Your task to perform on an android device: Clear the cart on bestbuy.com. Add bose soundlink to the cart on bestbuy.com, then select checkout. Image 0: 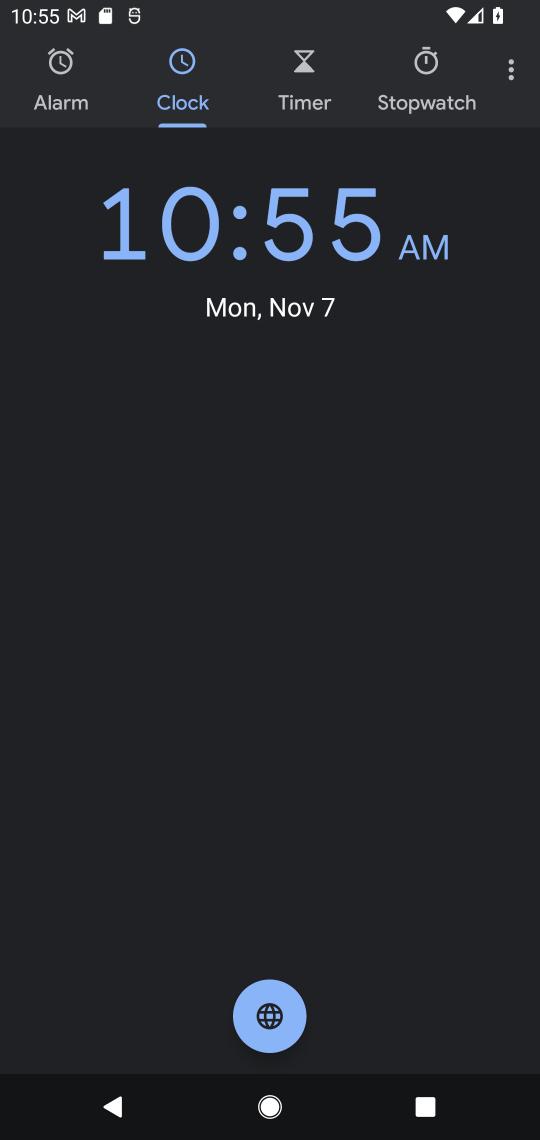
Step 0: press home button
Your task to perform on an android device: Clear the cart on bestbuy.com. Add bose soundlink to the cart on bestbuy.com, then select checkout. Image 1: 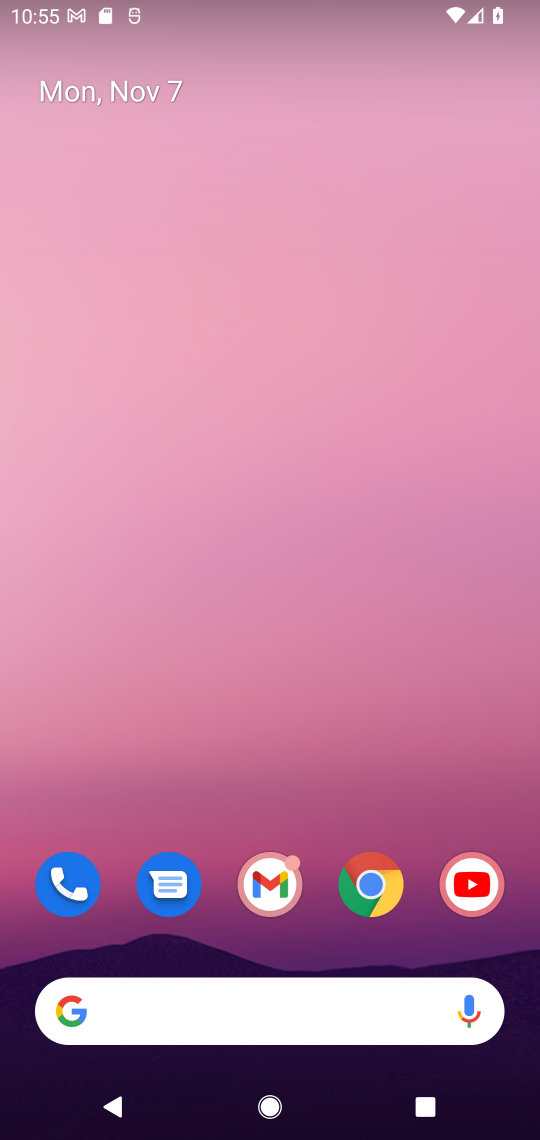
Step 1: click (372, 879)
Your task to perform on an android device: Clear the cart on bestbuy.com. Add bose soundlink to the cart on bestbuy.com, then select checkout. Image 2: 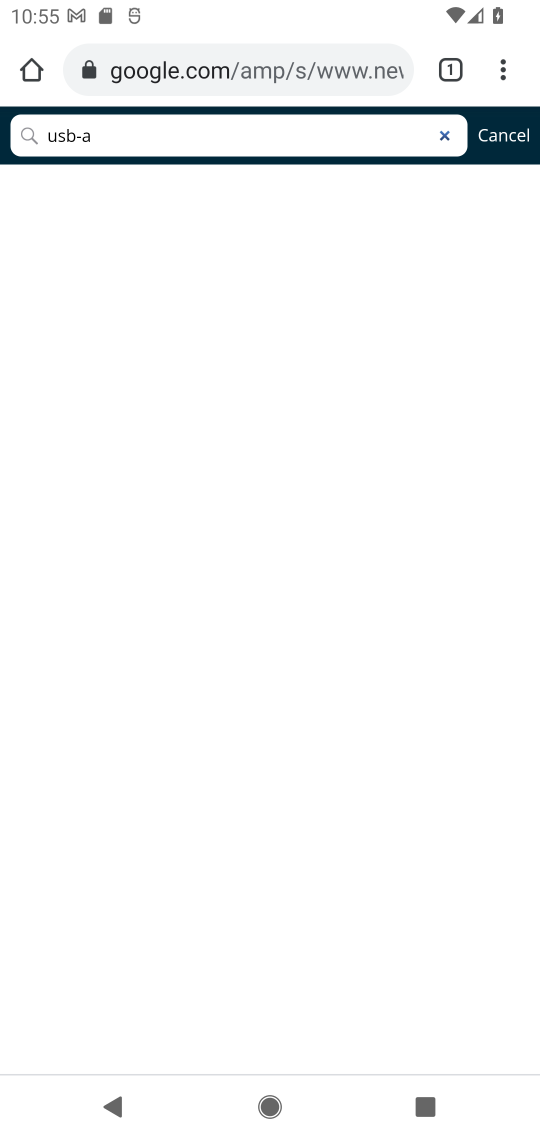
Step 2: click (345, 59)
Your task to perform on an android device: Clear the cart on bestbuy.com. Add bose soundlink to the cart on bestbuy.com, then select checkout. Image 3: 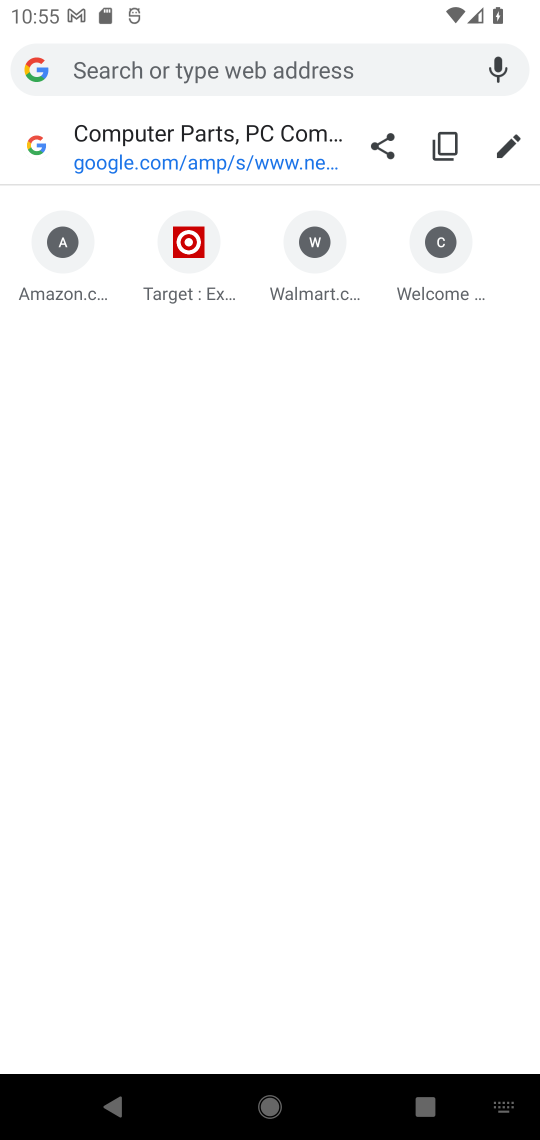
Step 3: type "bestbuy.com"
Your task to perform on an android device: Clear the cart on bestbuy.com. Add bose soundlink to the cart on bestbuy.com, then select checkout. Image 4: 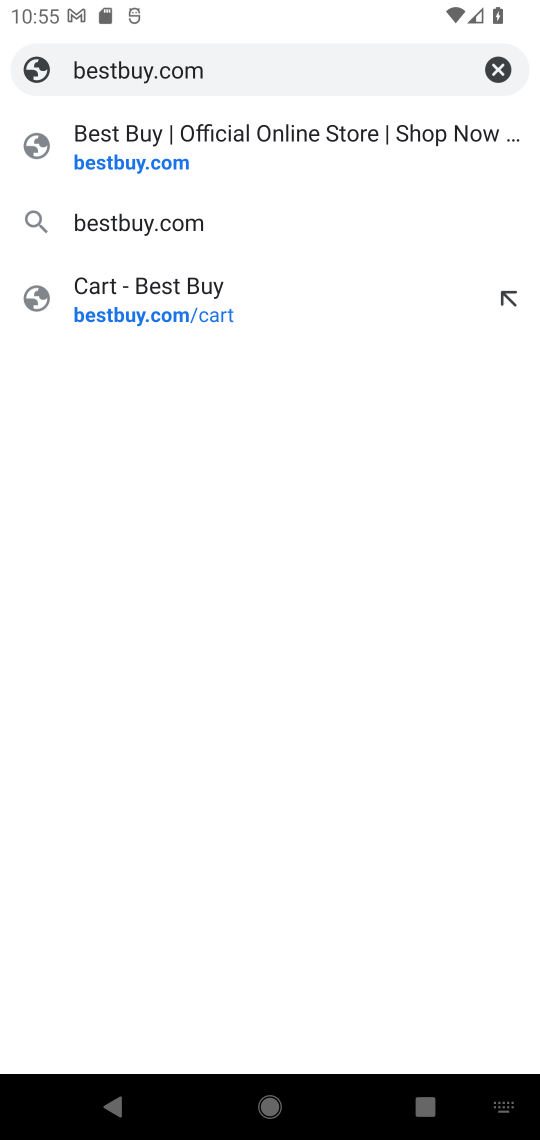
Step 4: click (140, 230)
Your task to perform on an android device: Clear the cart on bestbuy.com. Add bose soundlink to the cart on bestbuy.com, then select checkout. Image 5: 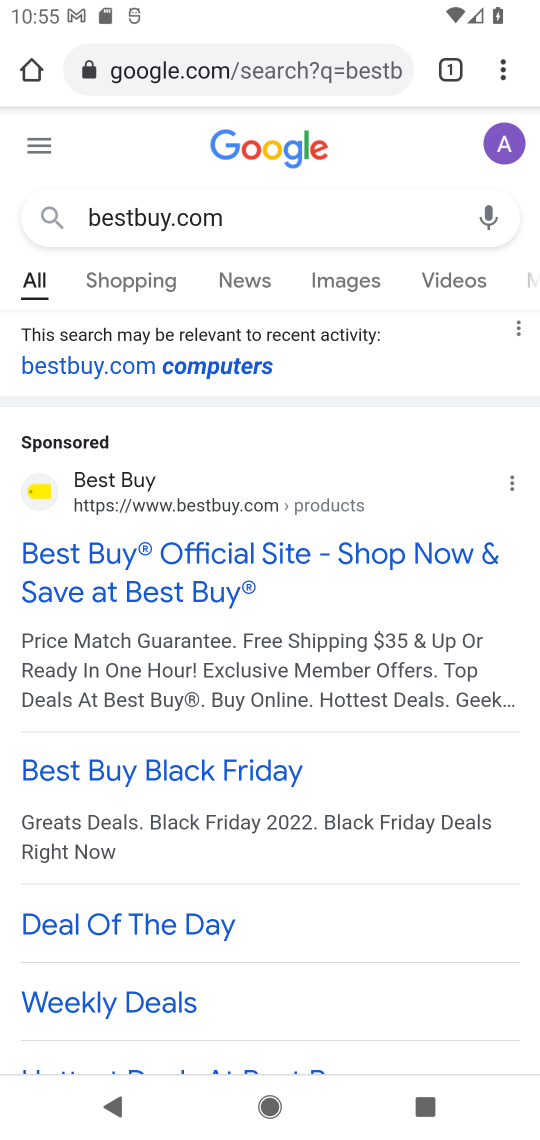
Step 5: click (129, 494)
Your task to perform on an android device: Clear the cart on bestbuy.com. Add bose soundlink to the cart on bestbuy.com, then select checkout. Image 6: 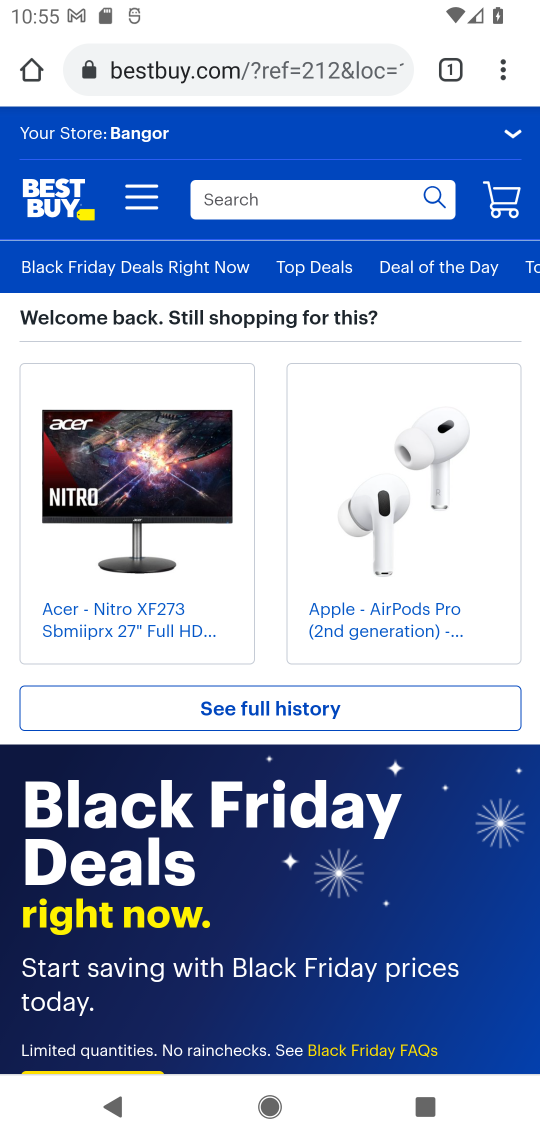
Step 6: click (509, 200)
Your task to perform on an android device: Clear the cart on bestbuy.com. Add bose soundlink to the cart on bestbuy.com, then select checkout. Image 7: 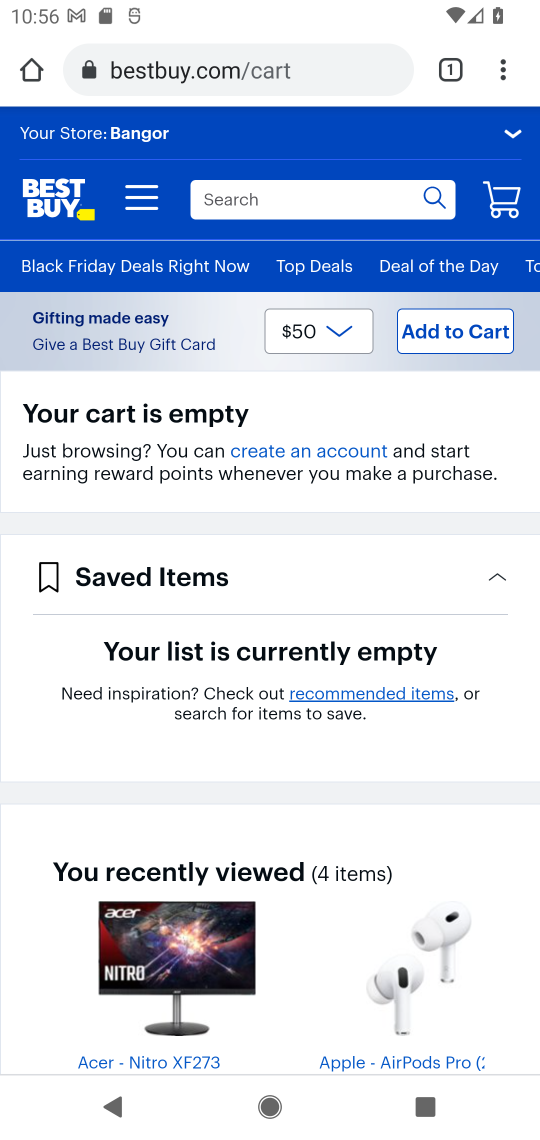
Step 7: click (364, 190)
Your task to perform on an android device: Clear the cart on bestbuy.com. Add bose soundlink to the cart on bestbuy.com, then select checkout. Image 8: 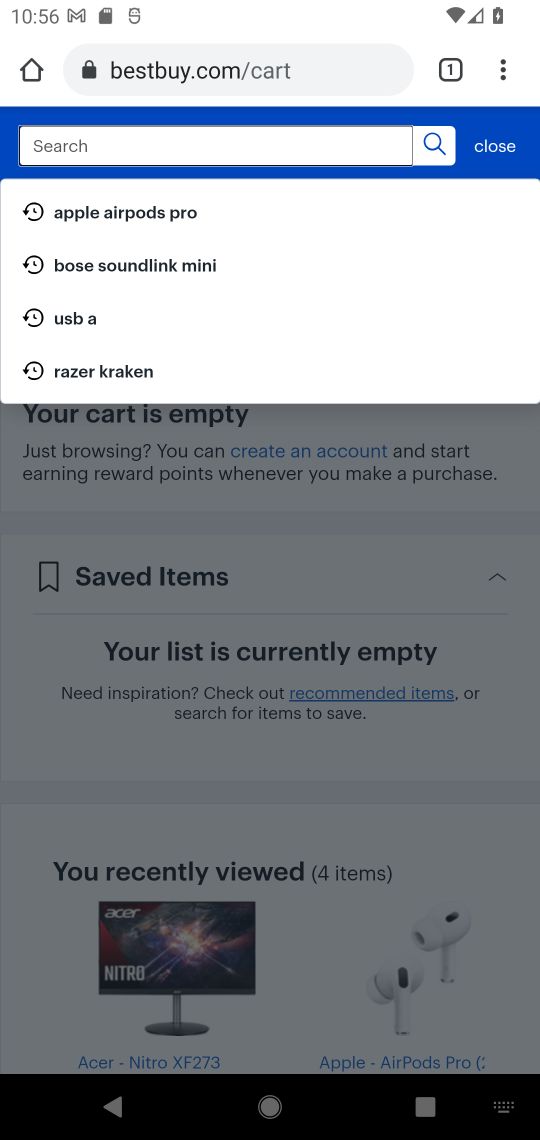
Step 8: type "bose soundlink"
Your task to perform on an android device: Clear the cart on bestbuy.com. Add bose soundlink to the cart on bestbuy.com, then select checkout. Image 9: 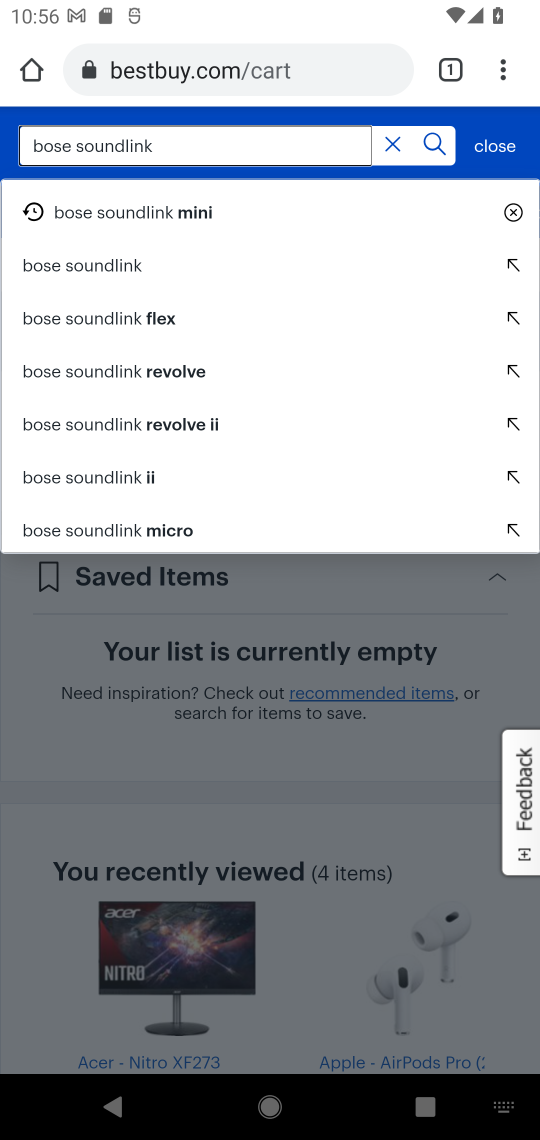
Step 9: click (119, 258)
Your task to perform on an android device: Clear the cart on bestbuy.com. Add bose soundlink to the cart on bestbuy.com, then select checkout. Image 10: 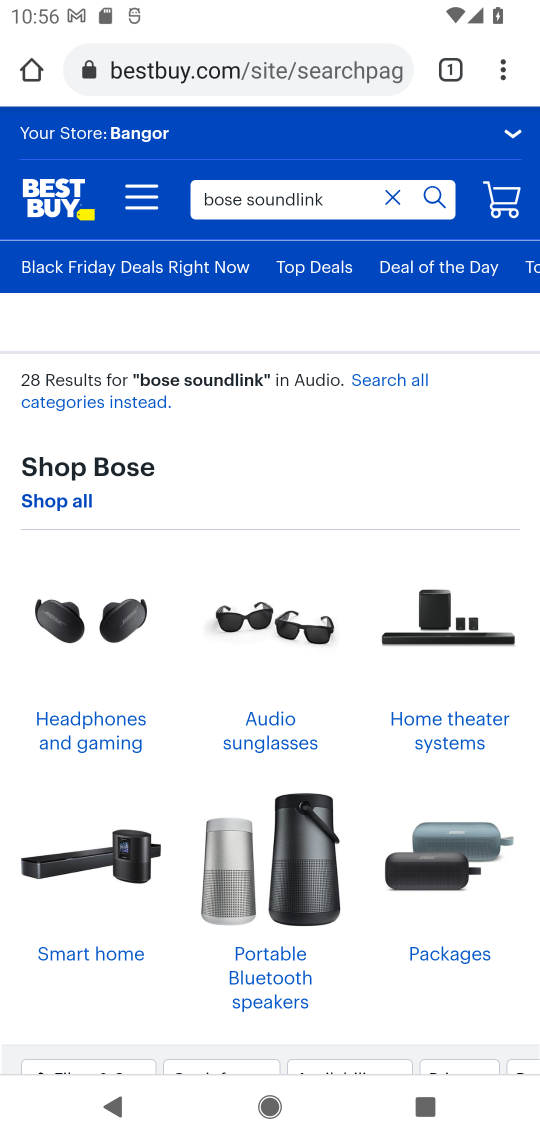
Step 10: drag from (361, 736) to (394, 294)
Your task to perform on an android device: Clear the cart on bestbuy.com. Add bose soundlink to the cart on bestbuy.com, then select checkout. Image 11: 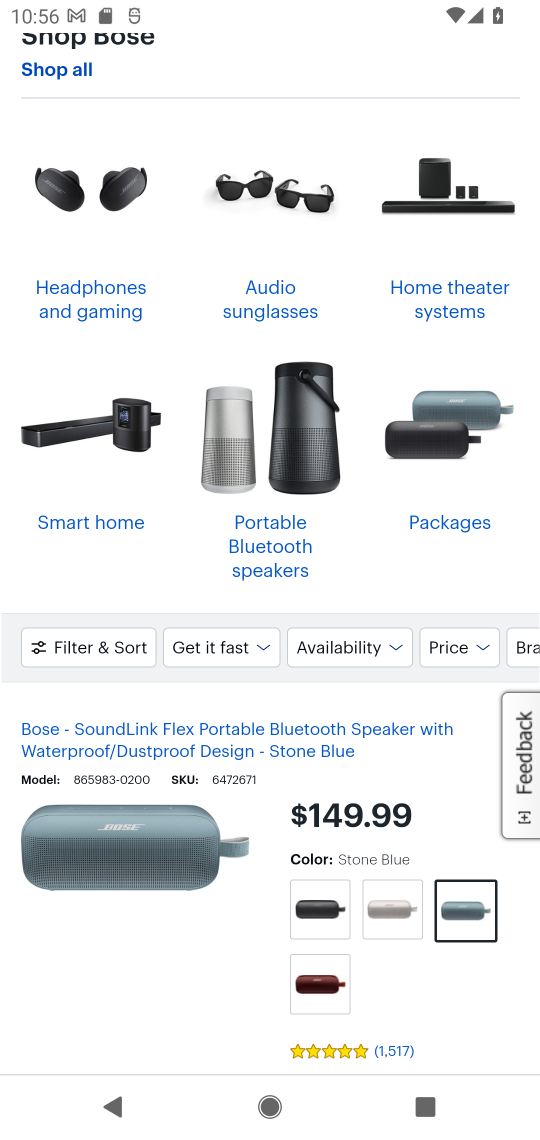
Step 11: click (118, 871)
Your task to perform on an android device: Clear the cart on bestbuy.com. Add bose soundlink to the cart on bestbuy.com, then select checkout. Image 12: 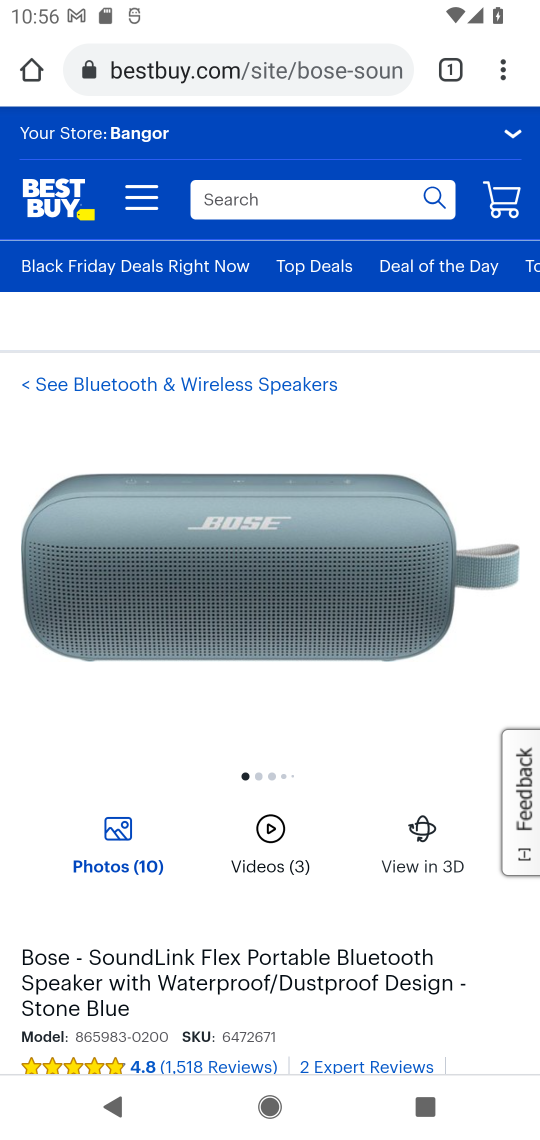
Step 12: drag from (327, 718) to (282, 335)
Your task to perform on an android device: Clear the cart on bestbuy.com. Add bose soundlink to the cart on bestbuy.com, then select checkout. Image 13: 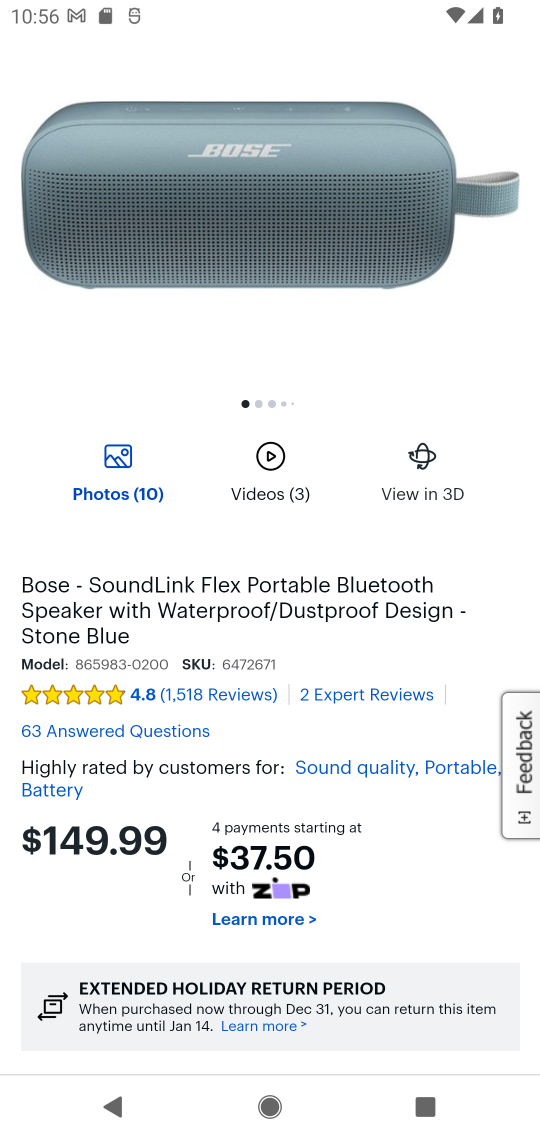
Step 13: drag from (406, 712) to (416, 329)
Your task to perform on an android device: Clear the cart on bestbuy.com. Add bose soundlink to the cart on bestbuy.com, then select checkout. Image 14: 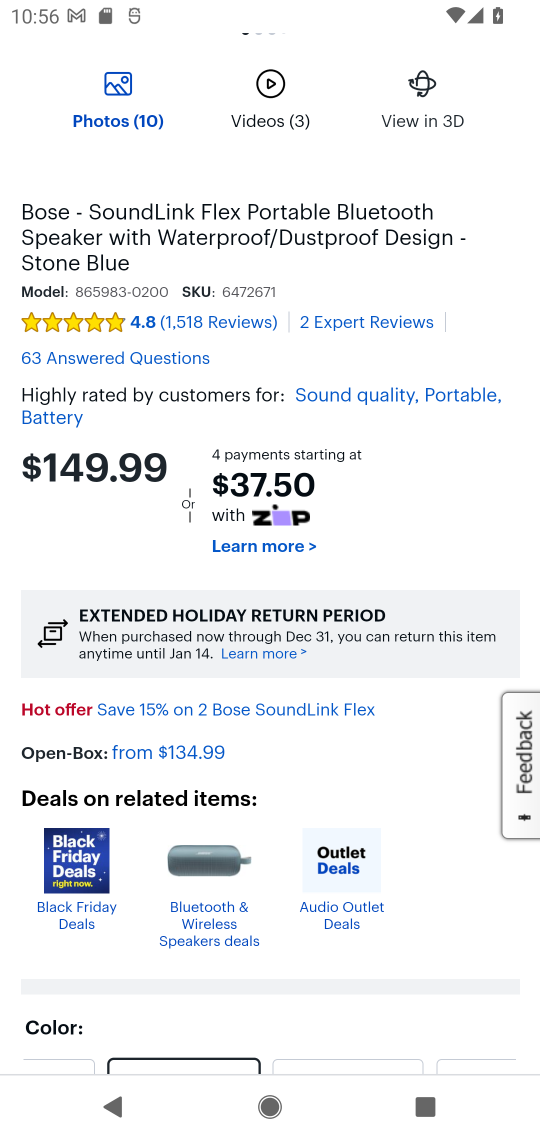
Step 14: drag from (440, 817) to (409, 321)
Your task to perform on an android device: Clear the cart on bestbuy.com. Add bose soundlink to the cart on bestbuy.com, then select checkout. Image 15: 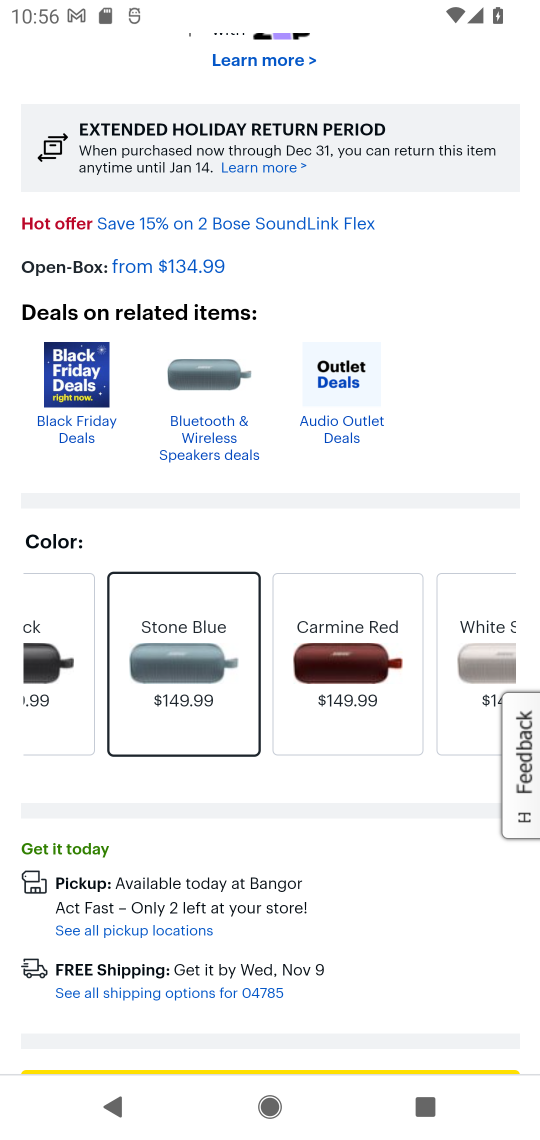
Step 15: drag from (409, 870) to (375, 437)
Your task to perform on an android device: Clear the cart on bestbuy.com. Add bose soundlink to the cart on bestbuy.com, then select checkout. Image 16: 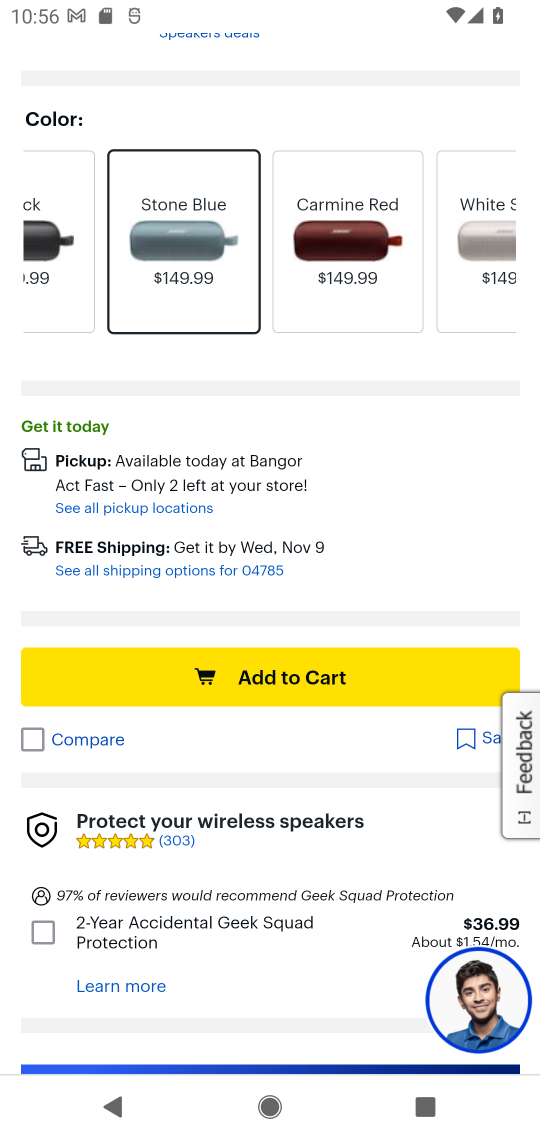
Step 16: click (316, 677)
Your task to perform on an android device: Clear the cart on bestbuy.com. Add bose soundlink to the cart on bestbuy.com, then select checkout. Image 17: 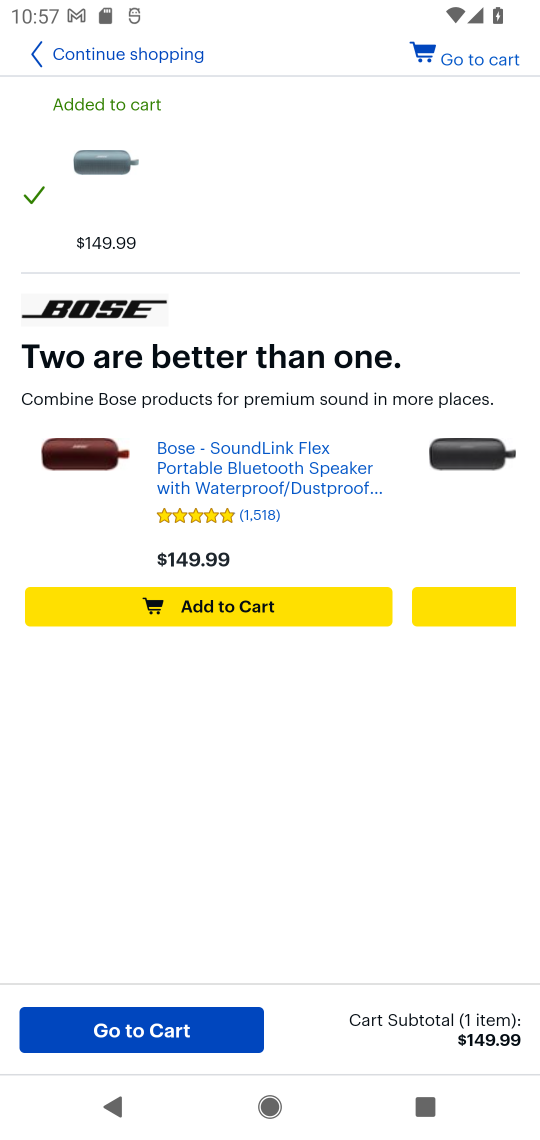
Step 17: click (163, 1033)
Your task to perform on an android device: Clear the cart on bestbuy.com. Add bose soundlink to the cart on bestbuy.com, then select checkout. Image 18: 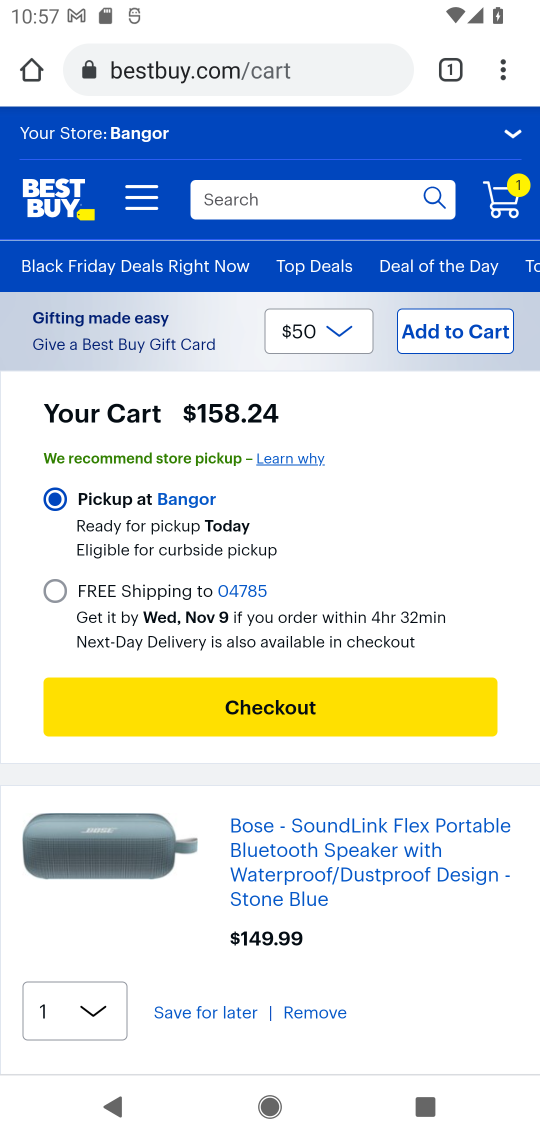
Step 18: click (337, 695)
Your task to perform on an android device: Clear the cart on bestbuy.com. Add bose soundlink to the cart on bestbuy.com, then select checkout. Image 19: 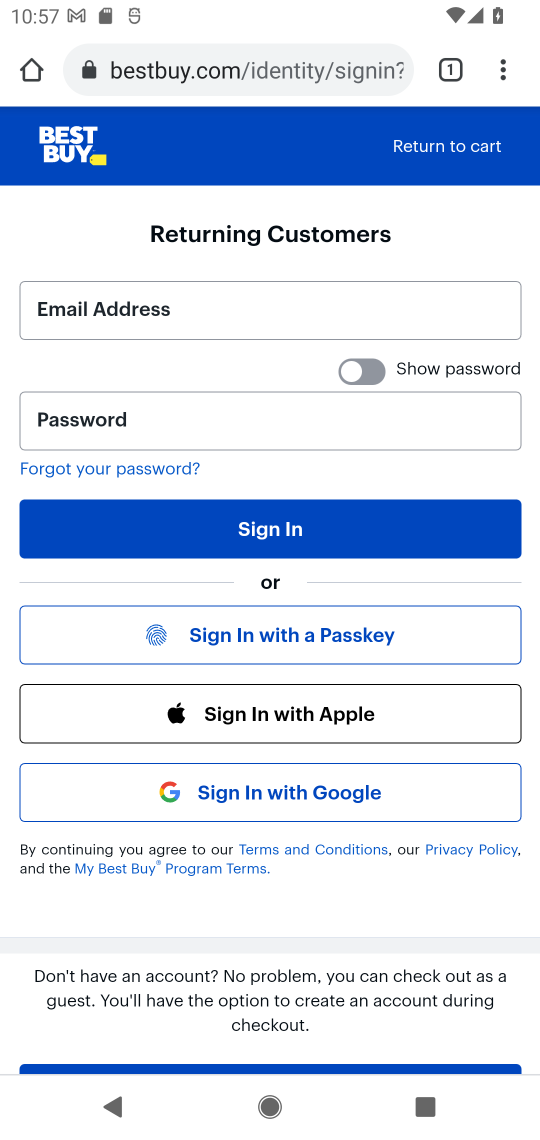
Step 19: task complete